Your task to perform on an android device: toggle airplane mode Image 0: 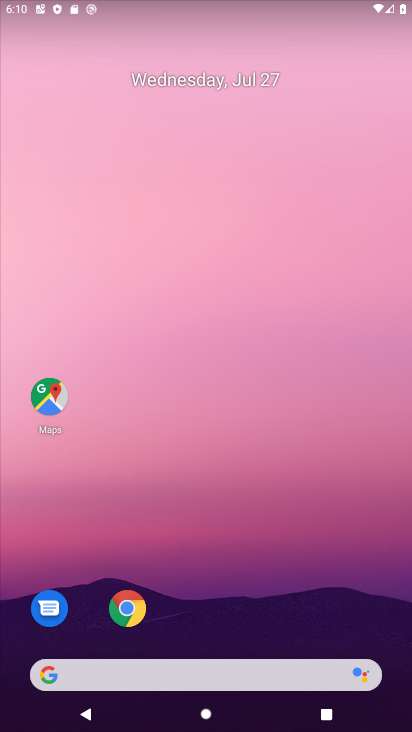
Step 0: press home button
Your task to perform on an android device: toggle airplane mode Image 1: 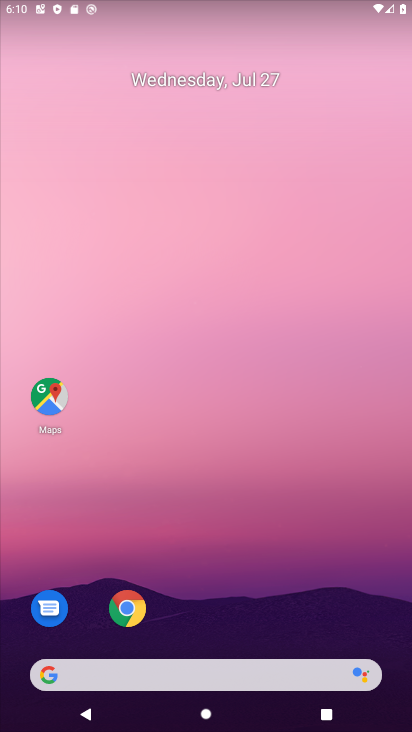
Step 1: click (190, 2)
Your task to perform on an android device: toggle airplane mode Image 2: 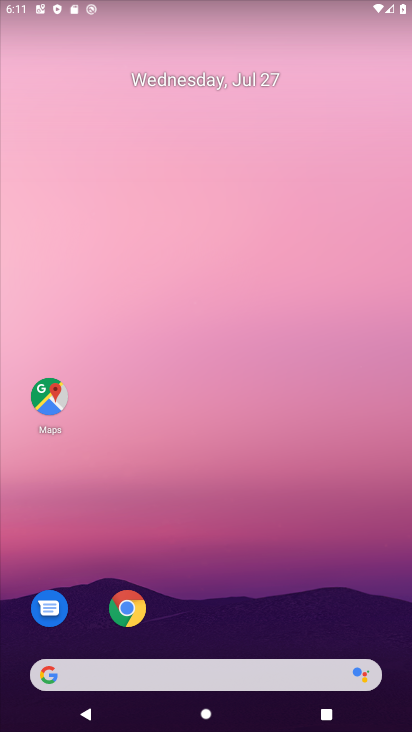
Step 2: drag from (219, 1) to (357, 678)
Your task to perform on an android device: toggle airplane mode Image 3: 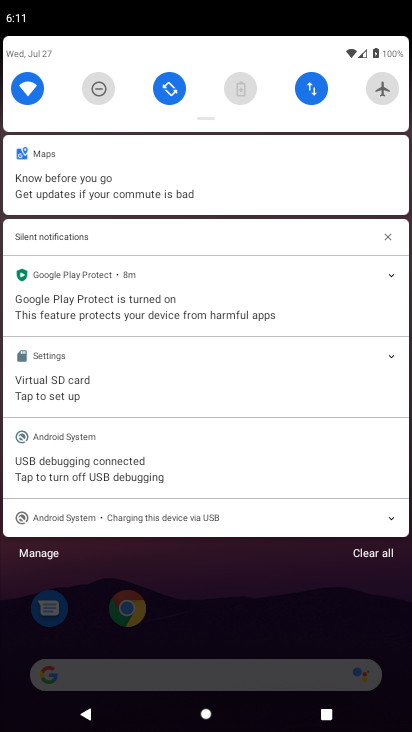
Step 3: click (381, 92)
Your task to perform on an android device: toggle airplane mode Image 4: 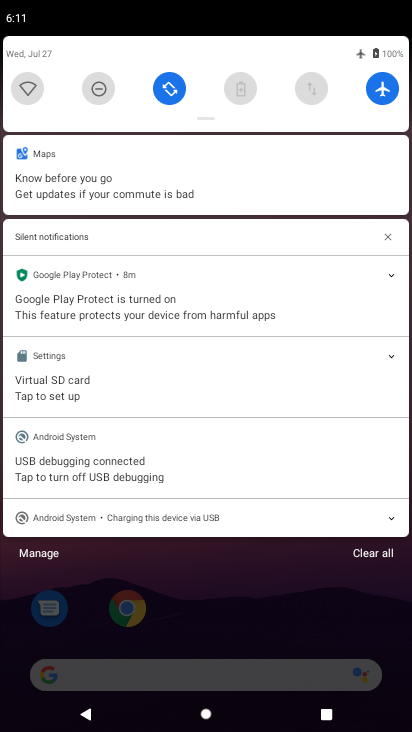
Step 4: task complete